Your task to perform on an android device: add a label to a message in the gmail app Image 0: 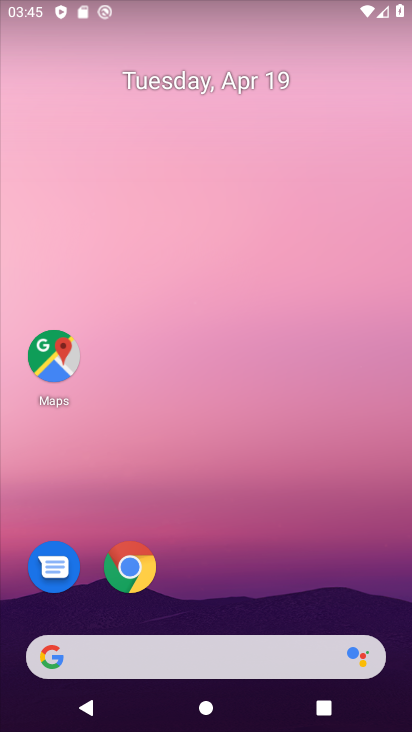
Step 0: drag from (182, 596) to (271, 134)
Your task to perform on an android device: add a label to a message in the gmail app Image 1: 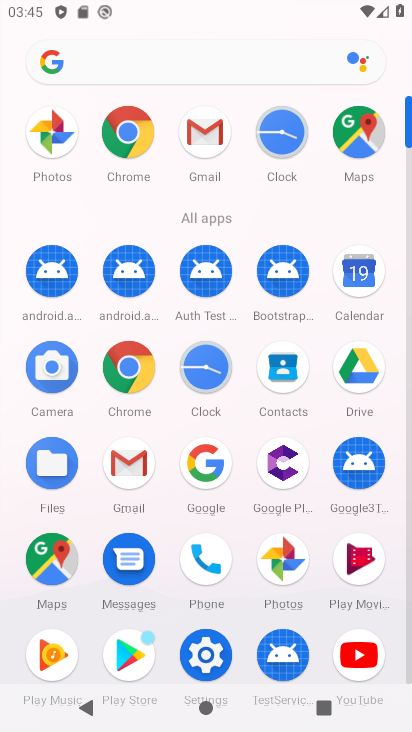
Step 1: click (124, 472)
Your task to perform on an android device: add a label to a message in the gmail app Image 2: 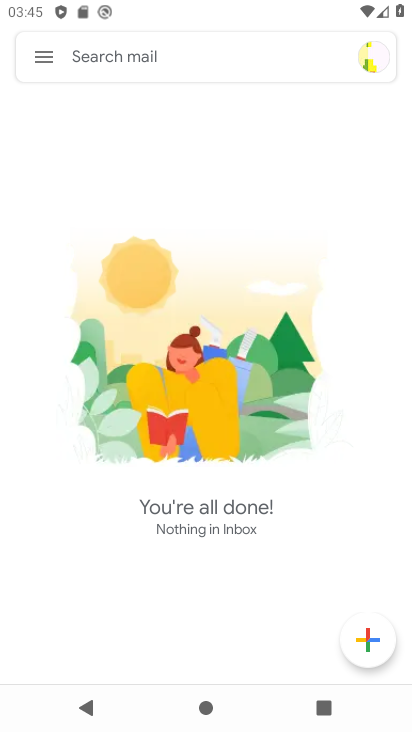
Step 2: click (42, 60)
Your task to perform on an android device: add a label to a message in the gmail app Image 3: 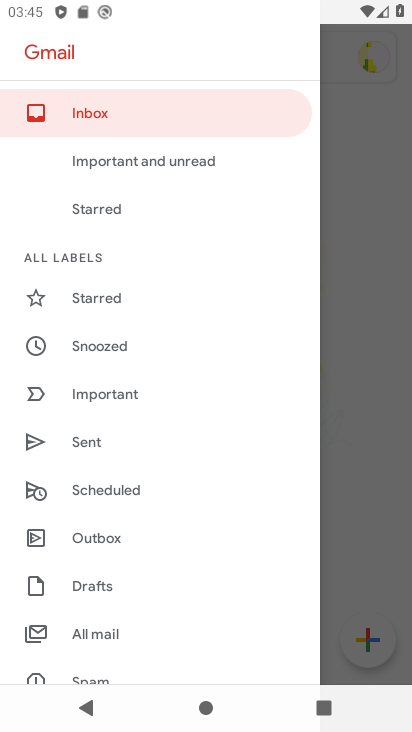
Step 3: drag from (131, 612) to (173, 414)
Your task to perform on an android device: add a label to a message in the gmail app Image 4: 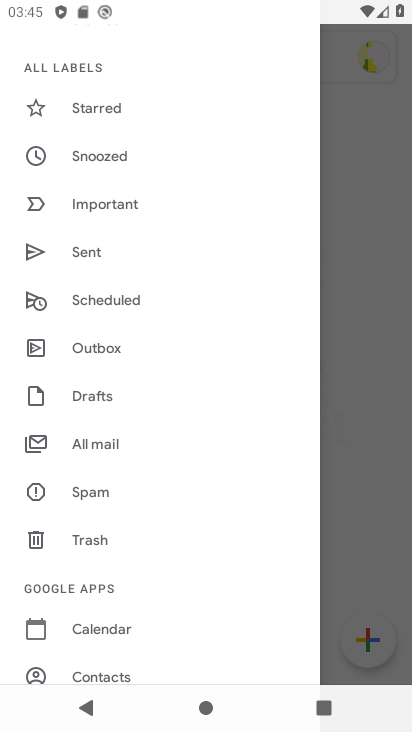
Step 4: click (126, 446)
Your task to perform on an android device: add a label to a message in the gmail app Image 5: 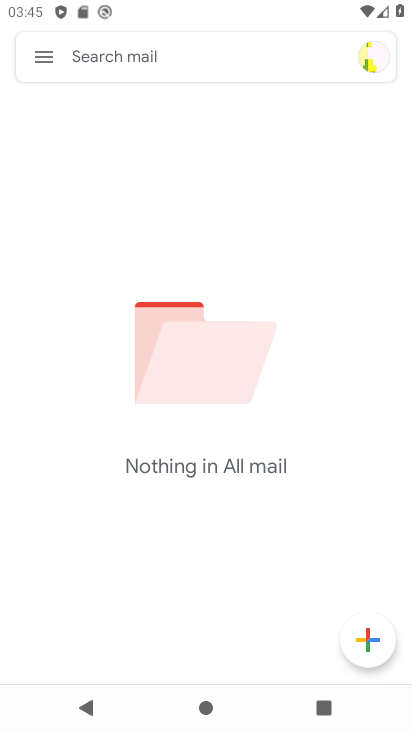
Step 5: task complete